Your task to perform on an android device: change the clock display to digital Image 0: 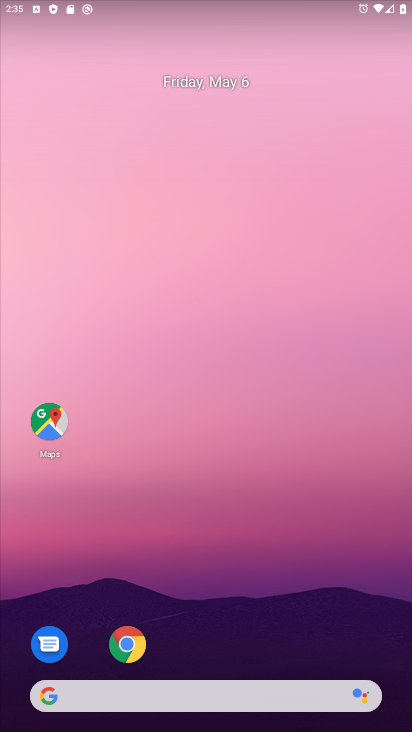
Step 0: drag from (163, 723) to (264, 59)
Your task to perform on an android device: change the clock display to digital Image 1: 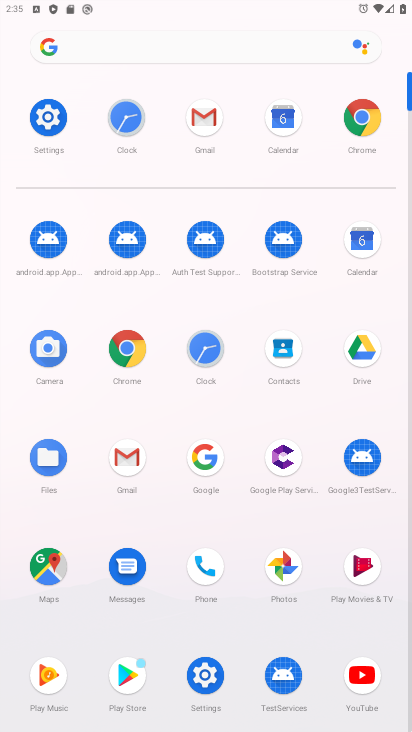
Step 1: click (121, 120)
Your task to perform on an android device: change the clock display to digital Image 2: 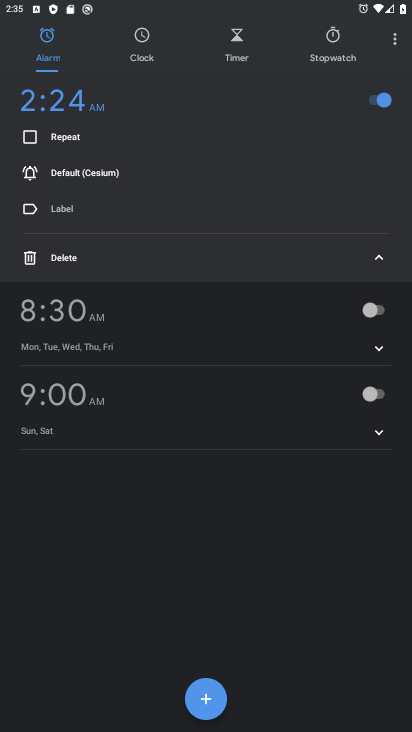
Step 2: click (387, 44)
Your task to perform on an android device: change the clock display to digital Image 3: 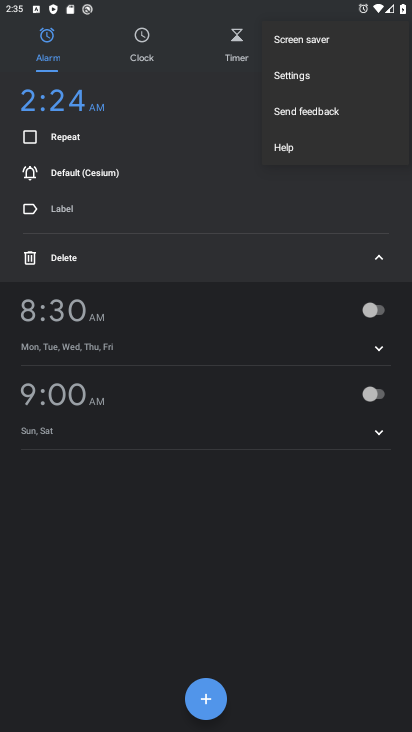
Step 3: click (313, 80)
Your task to perform on an android device: change the clock display to digital Image 4: 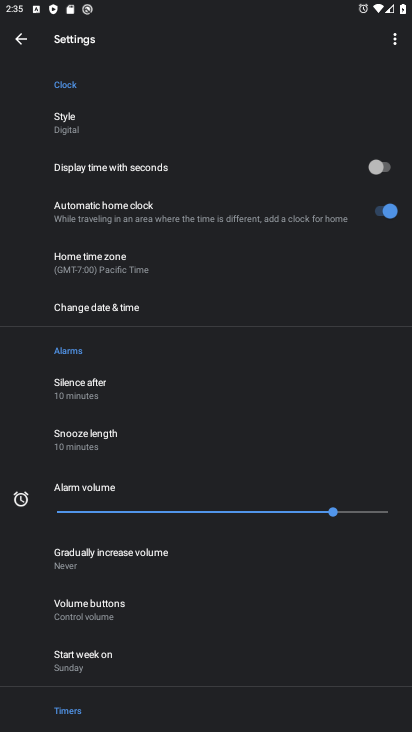
Step 4: click (93, 127)
Your task to perform on an android device: change the clock display to digital Image 5: 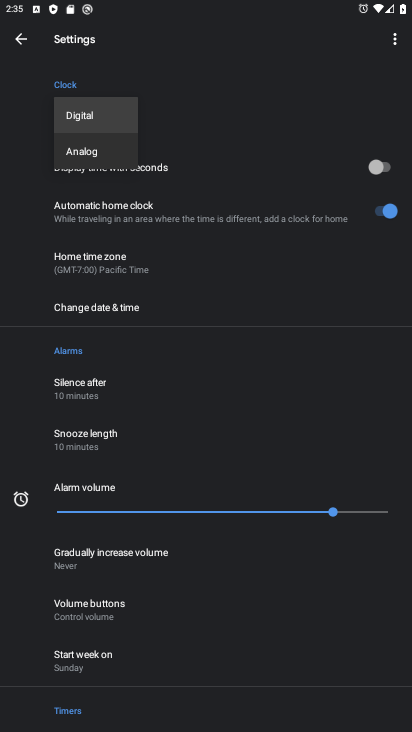
Step 5: click (109, 125)
Your task to perform on an android device: change the clock display to digital Image 6: 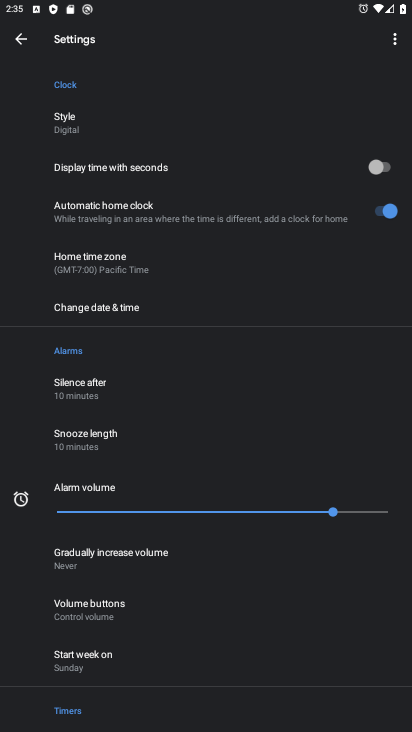
Step 6: task complete